Your task to perform on an android device: Toggle the flashlight Image 0: 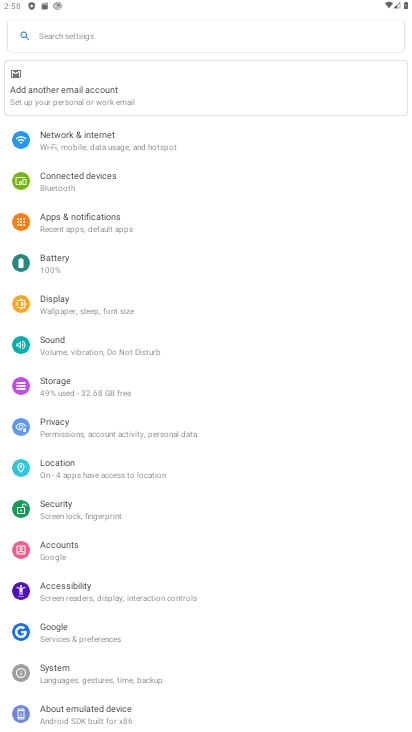
Step 0: click (73, 595)
Your task to perform on an android device: Toggle the flashlight Image 1: 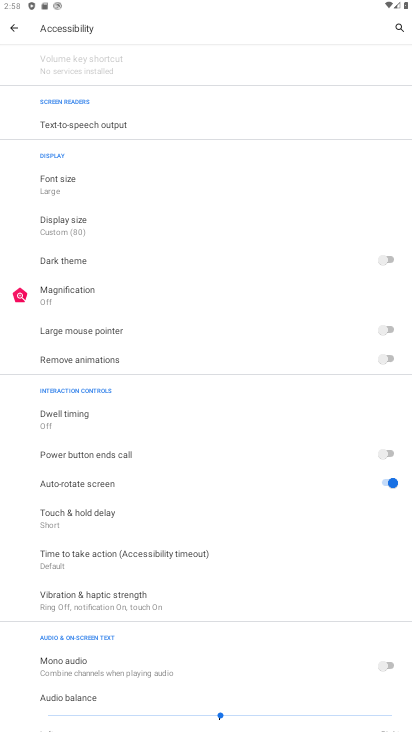
Step 1: drag from (227, 644) to (269, 331)
Your task to perform on an android device: Toggle the flashlight Image 2: 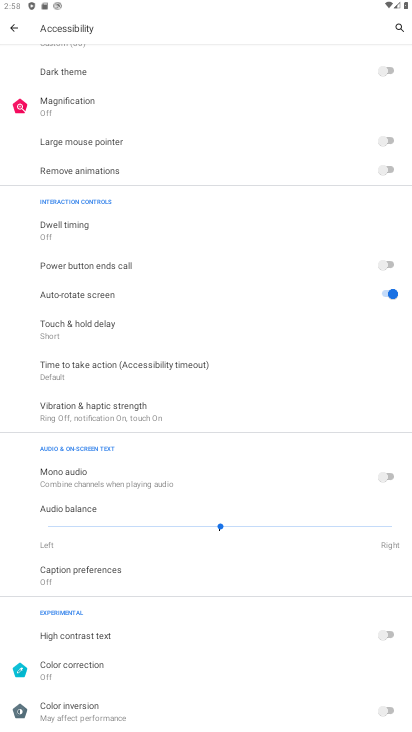
Step 2: click (86, 334)
Your task to perform on an android device: Toggle the flashlight Image 3: 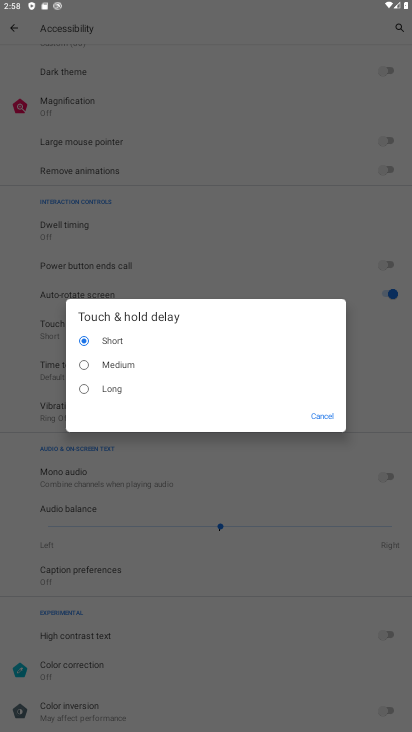
Step 3: click (234, 487)
Your task to perform on an android device: Toggle the flashlight Image 4: 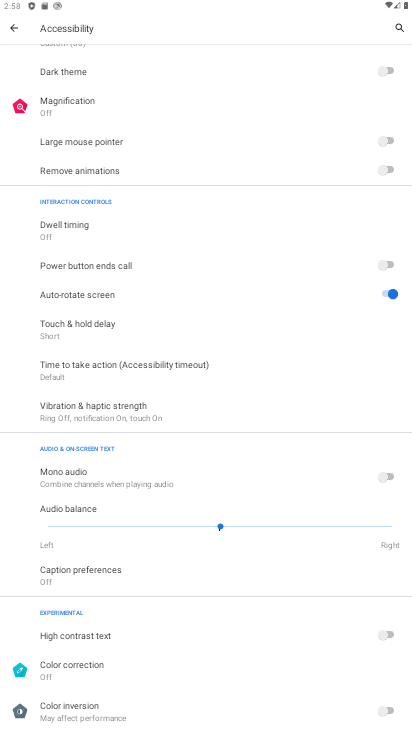
Step 4: task complete